Your task to perform on an android device: Open network settings Image 0: 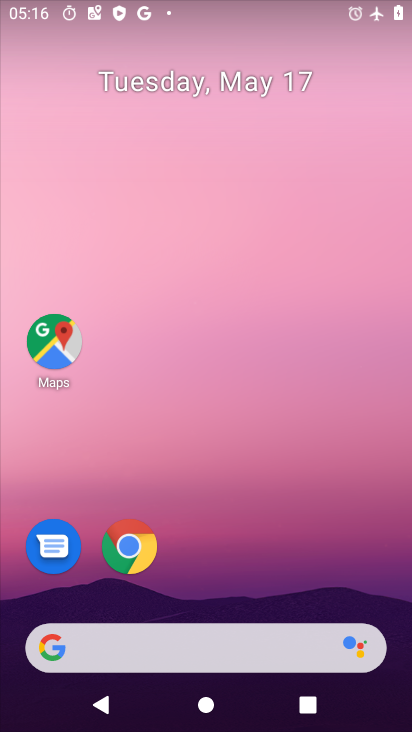
Step 0: drag from (390, 667) to (370, 320)
Your task to perform on an android device: Open network settings Image 1: 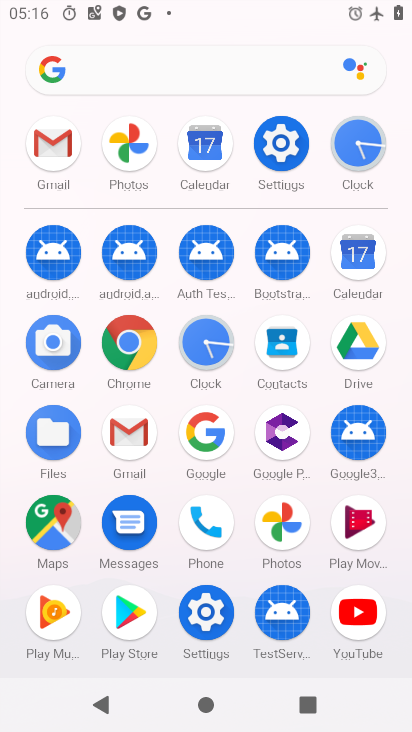
Step 1: click (280, 132)
Your task to perform on an android device: Open network settings Image 2: 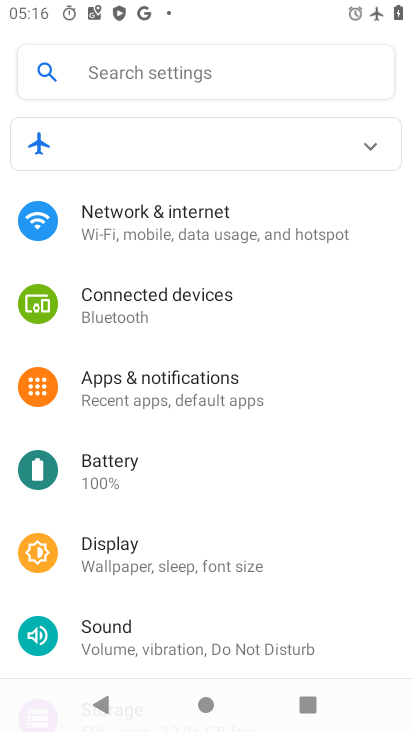
Step 2: click (130, 213)
Your task to perform on an android device: Open network settings Image 3: 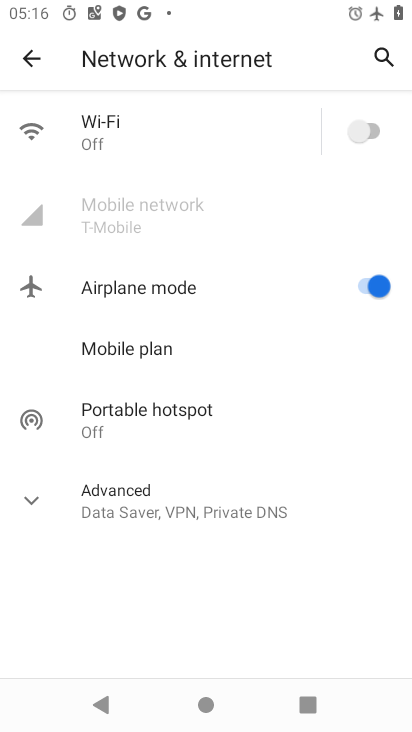
Step 3: task complete